Your task to perform on an android device: remove spam from my inbox in the gmail app Image 0: 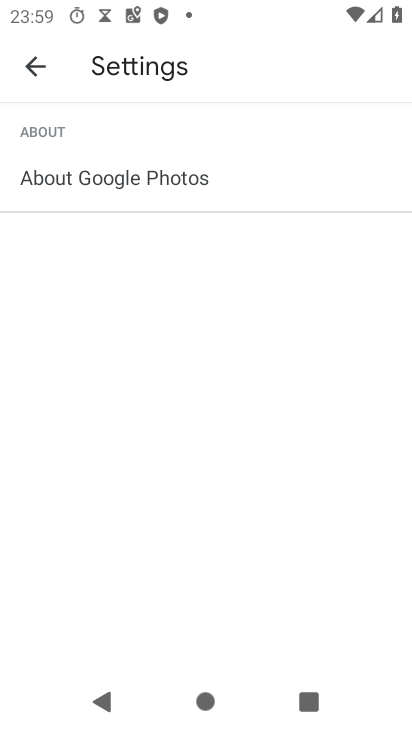
Step 0: press home button
Your task to perform on an android device: remove spam from my inbox in the gmail app Image 1: 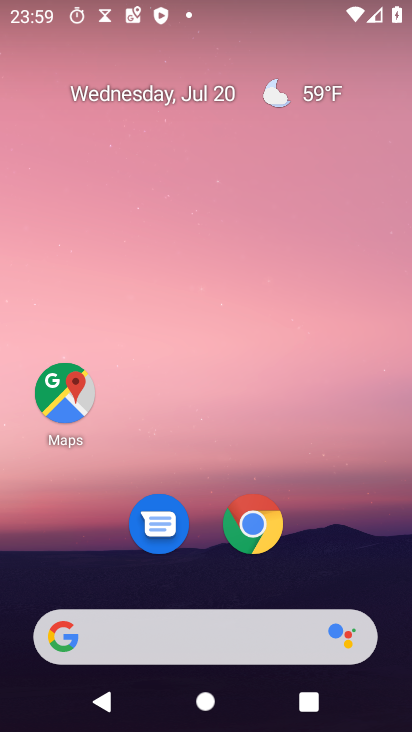
Step 1: drag from (156, 640) to (235, 180)
Your task to perform on an android device: remove spam from my inbox in the gmail app Image 2: 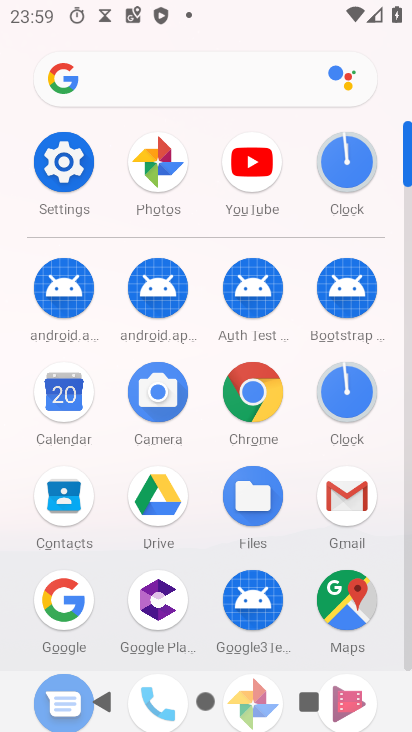
Step 2: click (355, 506)
Your task to perform on an android device: remove spam from my inbox in the gmail app Image 3: 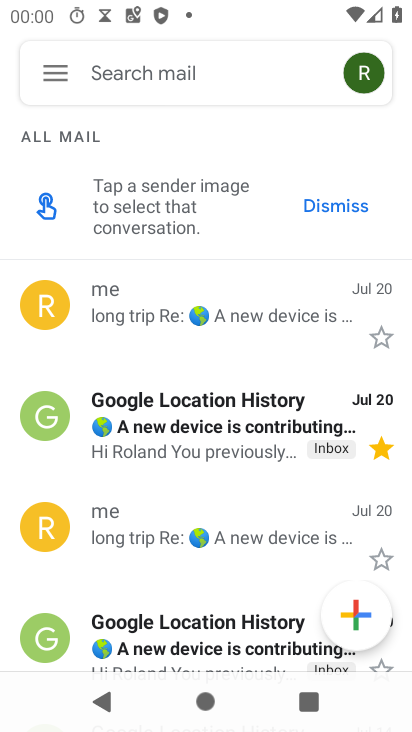
Step 3: click (51, 72)
Your task to perform on an android device: remove spam from my inbox in the gmail app Image 4: 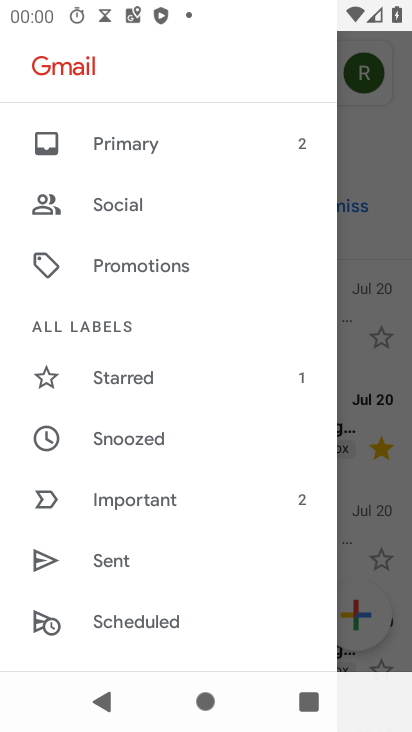
Step 4: drag from (180, 561) to (188, 111)
Your task to perform on an android device: remove spam from my inbox in the gmail app Image 5: 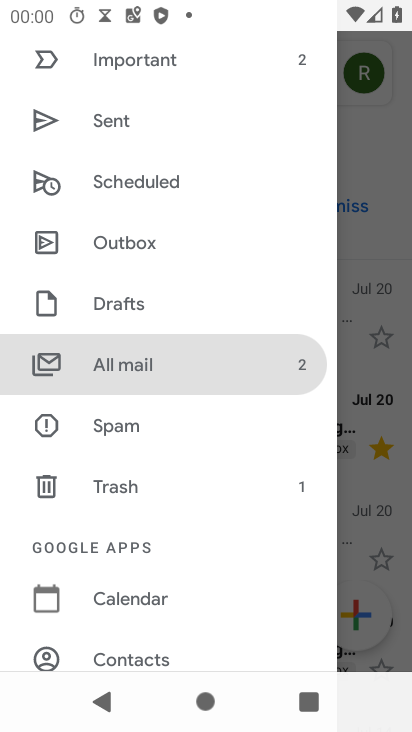
Step 5: click (127, 429)
Your task to perform on an android device: remove spam from my inbox in the gmail app Image 6: 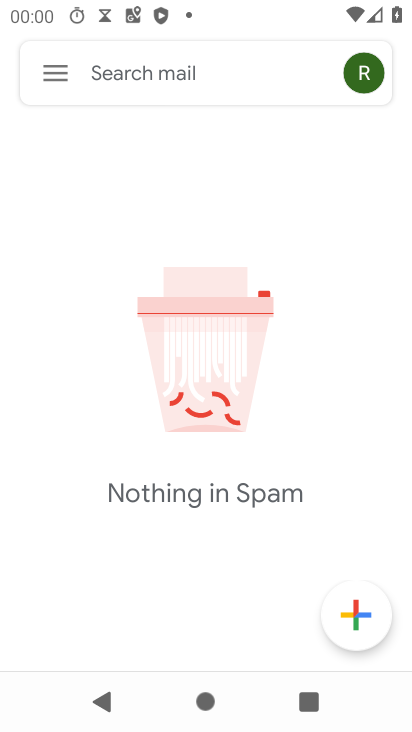
Step 6: task complete